Your task to perform on an android device: toggle wifi Image 0: 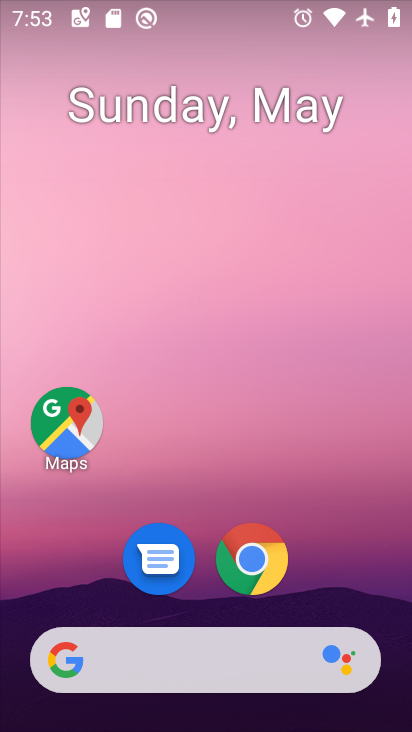
Step 0: press home button
Your task to perform on an android device: toggle wifi Image 1: 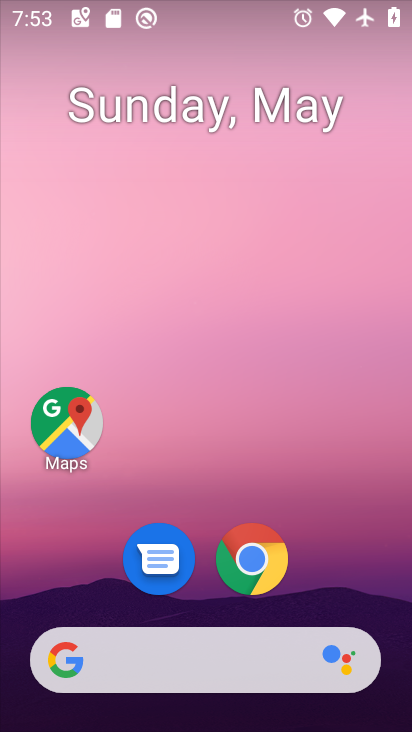
Step 1: drag from (158, 664) to (254, 178)
Your task to perform on an android device: toggle wifi Image 2: 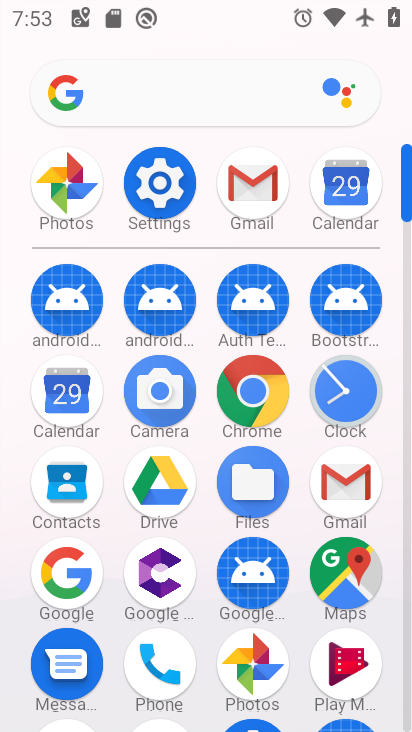
Step 2: click (171, 191)
Your task to perform on an android device: toggle wifi Image 3: 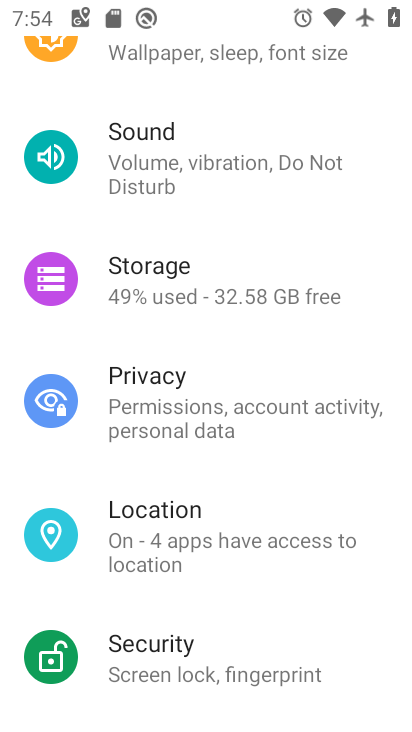
Step 3: drag from (320, 102) to (253, 643)
Your task to perform on an android device: toggle wifi Image 4: 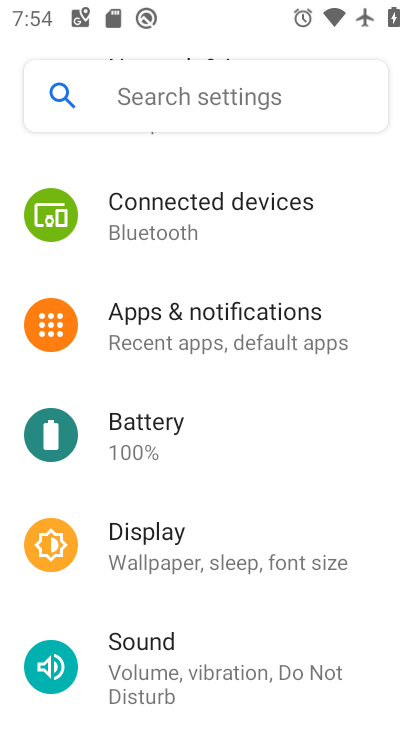
Step 4: drag from (303, 246) to (252, 592)
Your task to perform on an android device: toggle wifi Image 5: 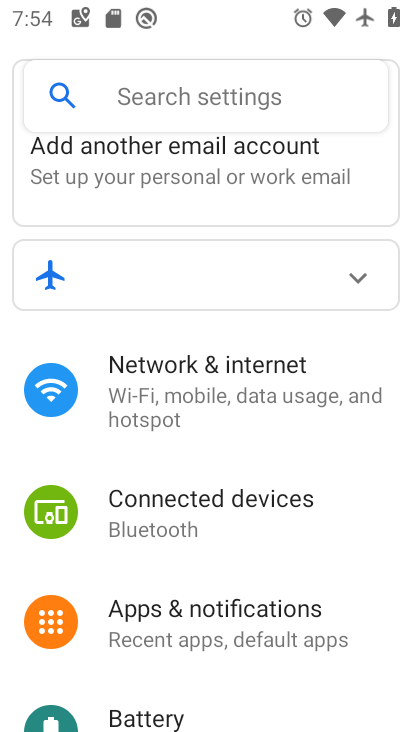
Step 5: click (201, 383)
Your task to perform on an android device: toggle wifi Image 6: 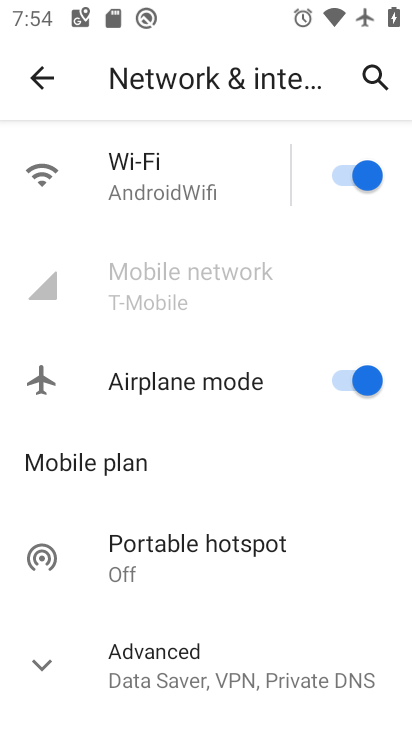
Step 6: click (342, 176)
Your task to perform on an android device: toggle wifi Image 7: 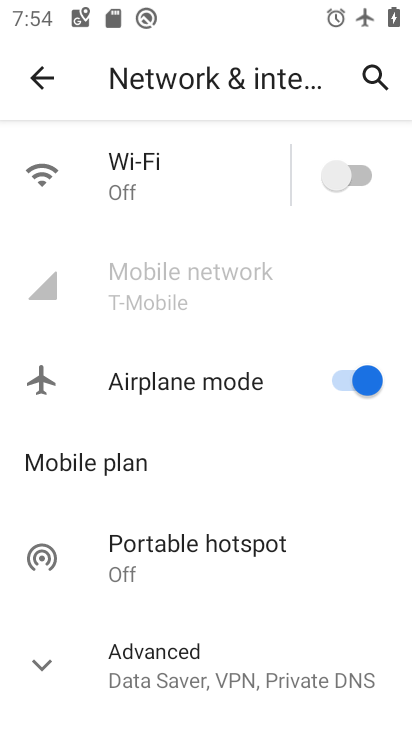
Step 7: task complete